Your task to perform on an android device: Open Chrome and go to the settings page Image 0: 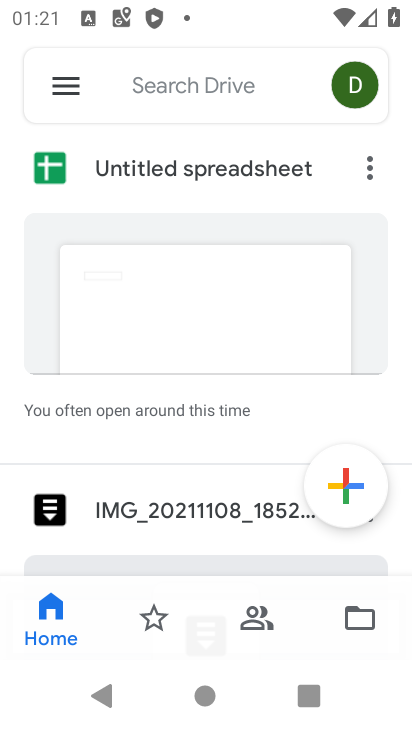
Step 0: press home button
Your task to perform on an android device: Open Chrome and go to the settings page Image 1: 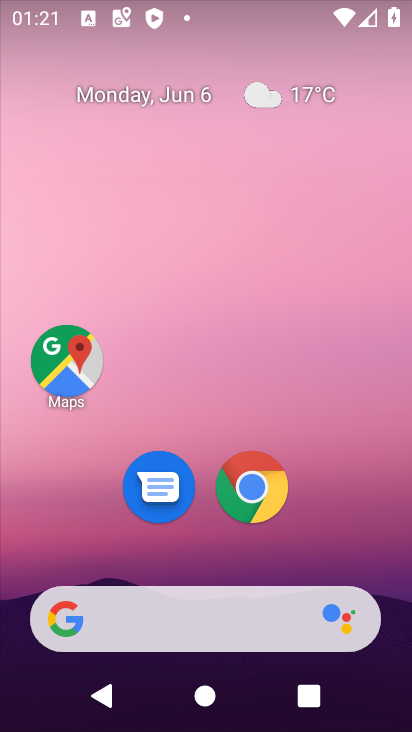
Step 1: click (253, 483)
Your task to perform on an android device: Open Chrome and go to the settings page Image 2: 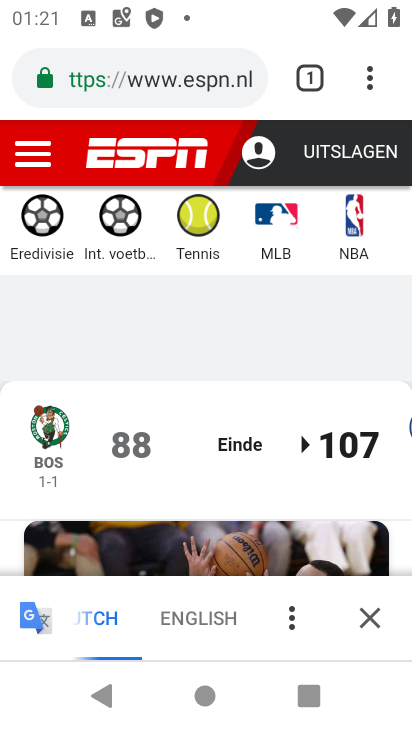
Step 2: click (366, 84)
Your task to perform on an android device: Open Chrome and go to the settings page Image 3: 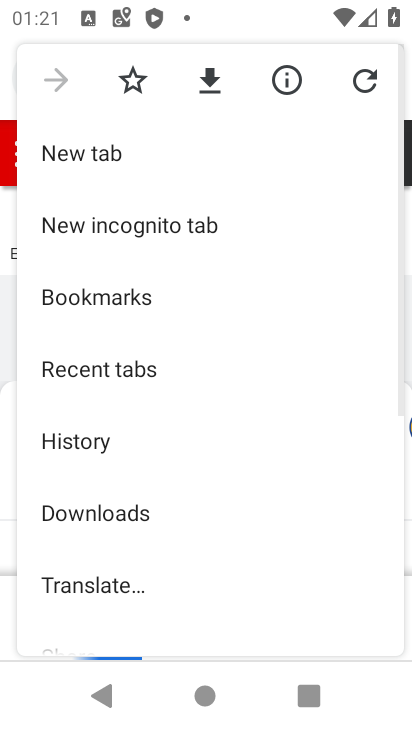
Step 3: drag from (200, 574) to (216, 175)
Your task to perform on an android device: Open Chrome and go to the settings page Image 4: 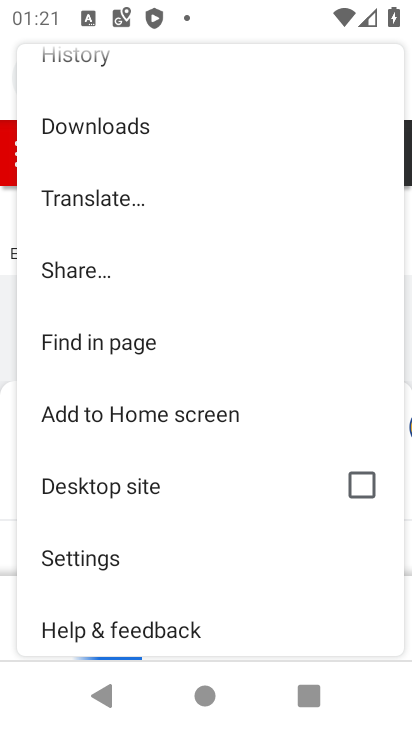
Step 4: click (97, 550)
Your task to perform on an android device: Open Chrome and go to the settings page Image 5: 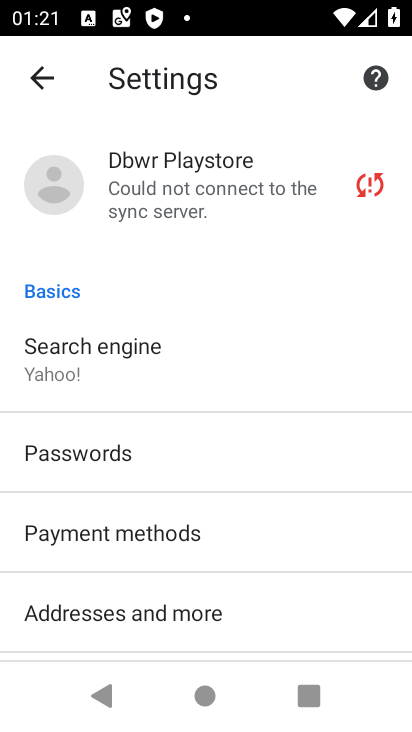
Step 5: task complete